Your task to perform on an android device: open chrome privacy settings Image 0: 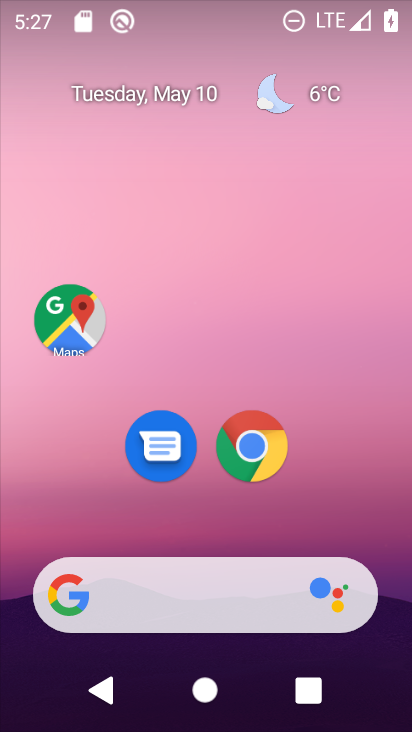
Step 0: click (245, 425)
Your task to perform on an android device: open chrome privacy settings Image 1: 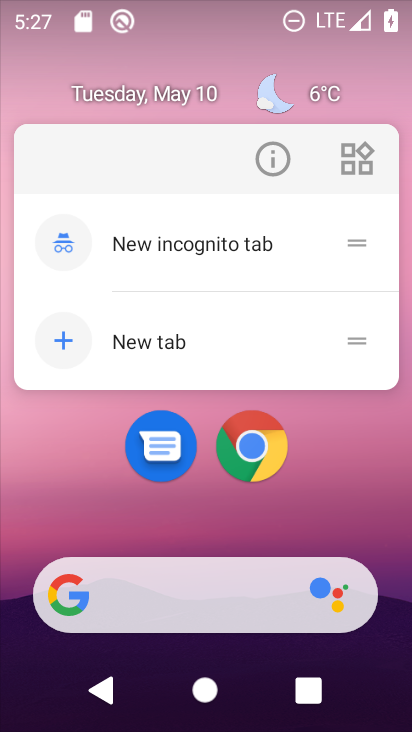
Step 1: click (262, 460)
Your task to perform on an android device: open chrome privacy settings Image 2: 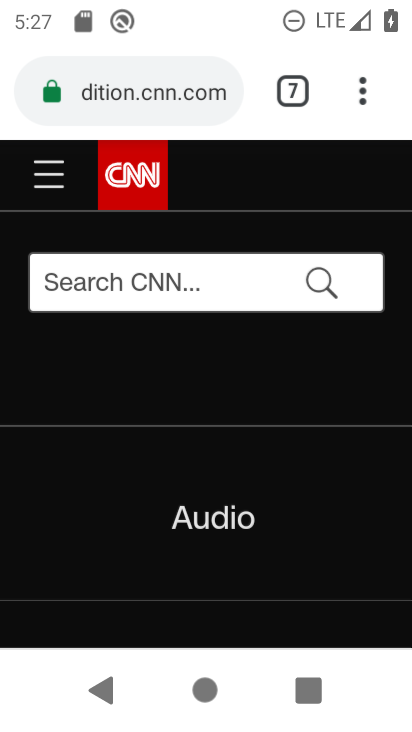
Step 2: click (369, 89)
Your task to perform on an android device: open chrome privacy settings Image 3: 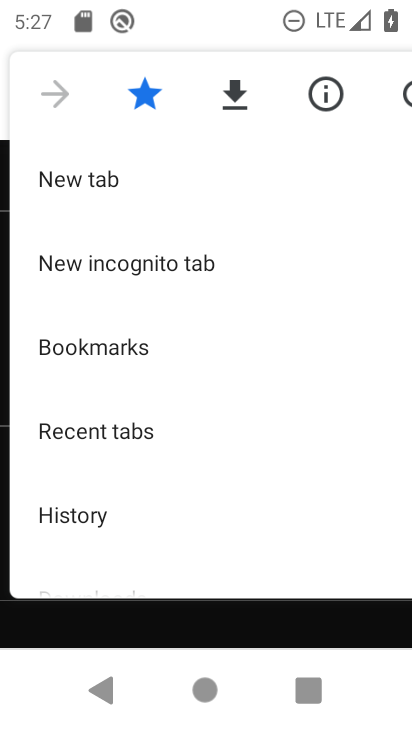
Step 3: drag from (177, 497) to (173, 199)
Your task to perform on an android device: open chrome privacy settings Image 4: 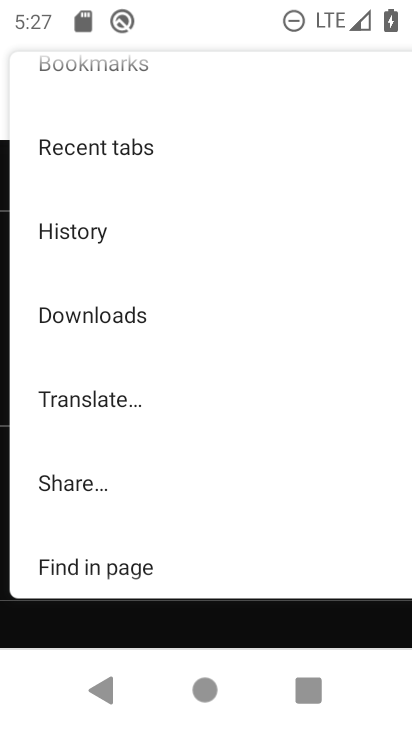
Step 4: drag from (198, 467) to (187, 172)
Your task to perform on an android device: open chrome privacy settings Image 5: 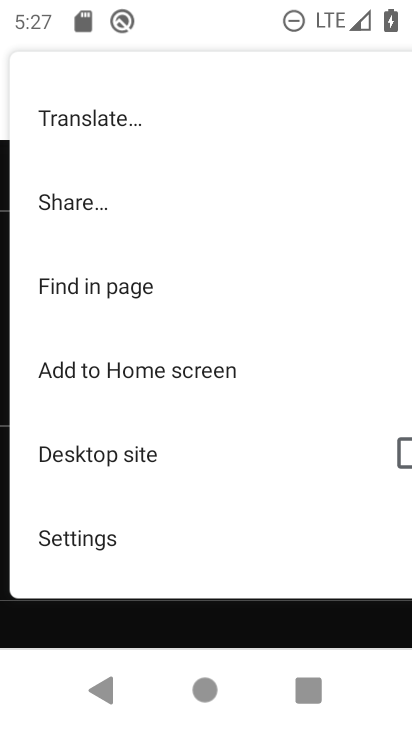
Step 5: click (170, 563)
Your task to perform on an android device: open chrome privacy settings Image 6: 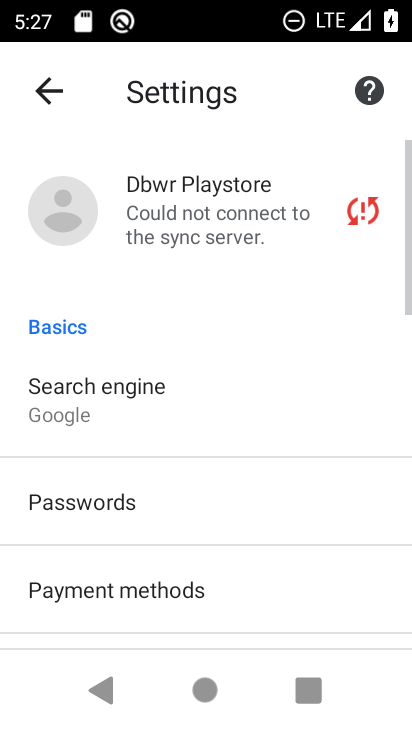
Step 6: drag from (195, 558) to (179, 266)
Your task to perform on an android device: open chrome privacy settings Image 7: 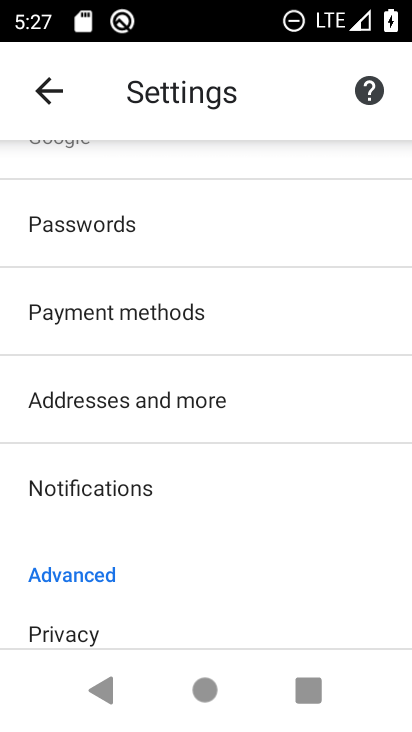
Step 7: click (127, 627)
Your task to perform on an android device: open chrome privacy settings Image 8: 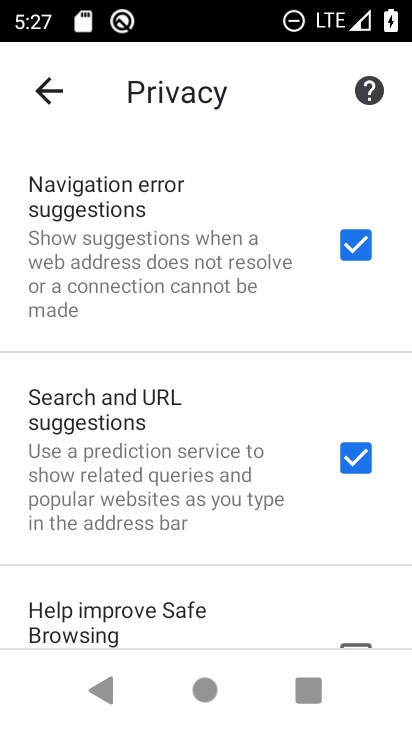
Step 8: task complete